Your task to perform on an android device: Open settings on Google Maps Image 0: 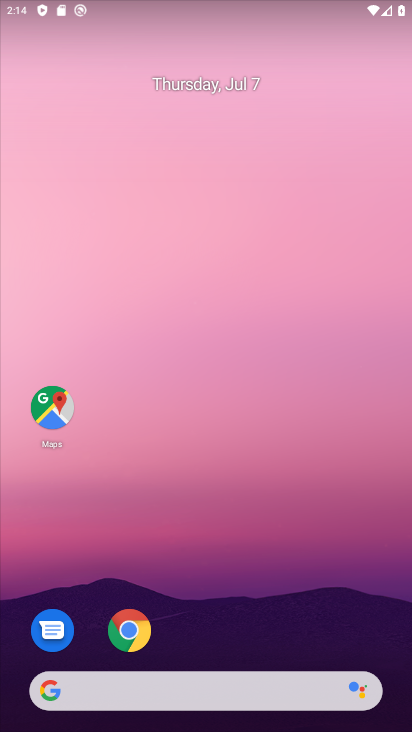
Step 0: drag from (176, 650) to (299, 126)
Your task to perform on an android device: Open settings on Google Maps Image 1: 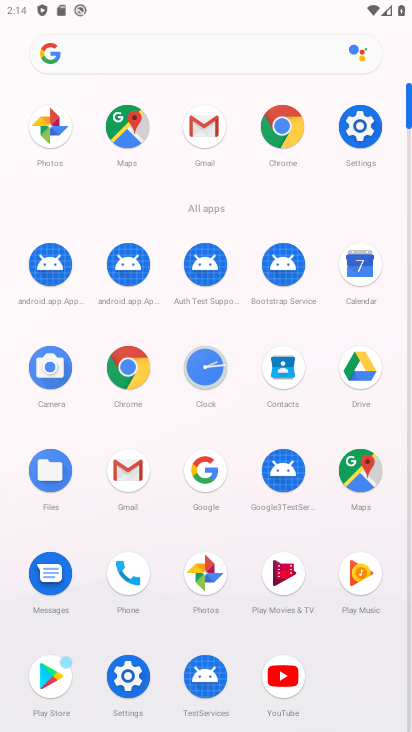
Step 1: click (355, 470)
Your task to perform on an android device: Open settings on Google Maps Image 2: 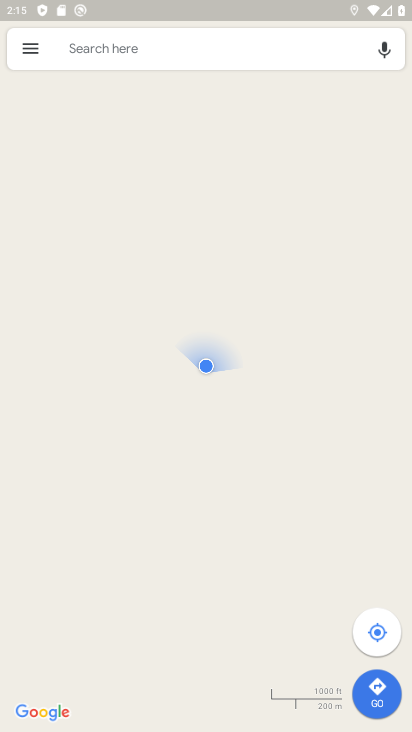
Step 2: click (33, 54)
Your task to perform on an android device: Open settings on Google Maps Image 3: 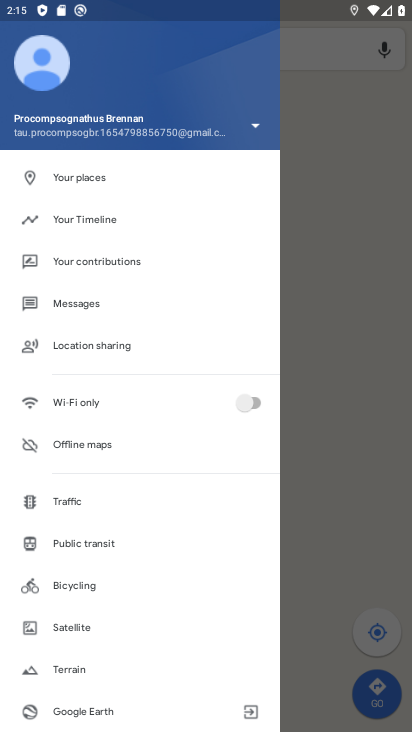
Step 3: drag from (110, 690) to (238, 262)
Your task to perform on an android device: Open settings on Google Maps Image 4: 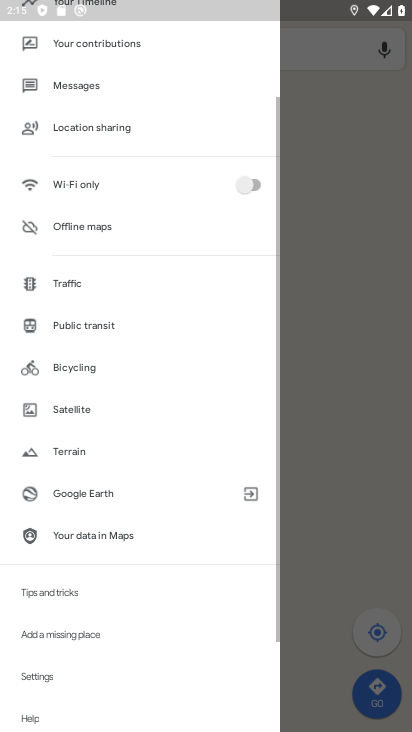
Step 4: drag from (87, 672) to (179, 331)
Your task to perform on an android device: Open settings on Google Maps Image 5: 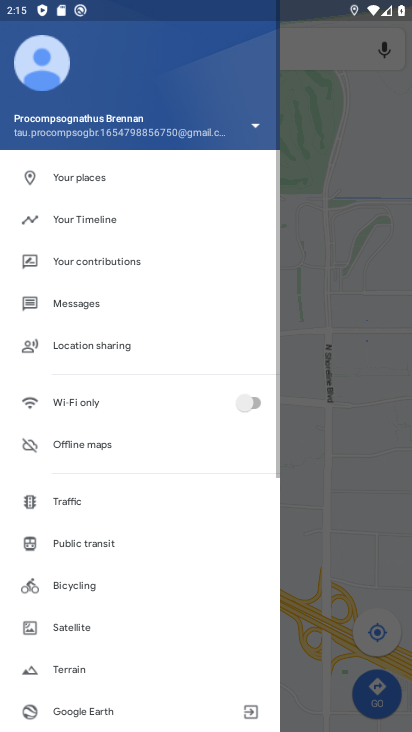
Step 5: drag from (97, 549) to (153, 327)
Your task to perform on an android device: Open settings on Google Maps Image 6: 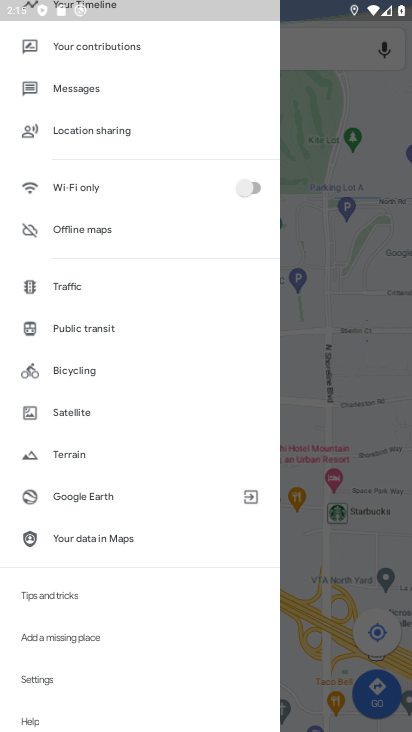
Step 6: click (57, 676)
Your task to perform on an android device: Open settings on Google Maps Image 7: 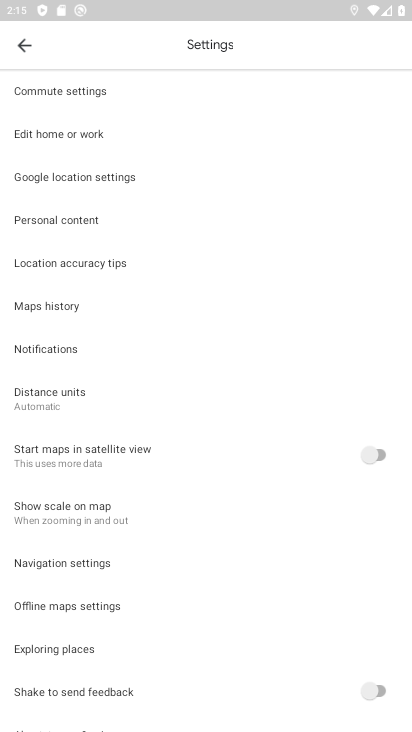
Step 7: task complete